Your task to perform on an android device: Clear the cart on bestbuy. Add "acer predator" to the cart on bestbuy Image 0: 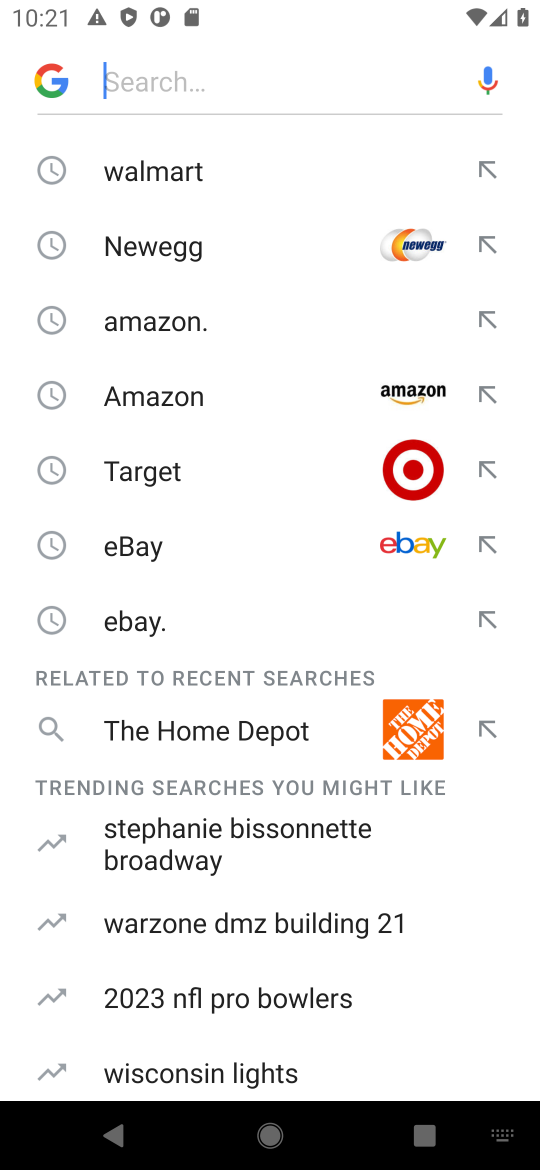
Step 0: type "bestbyut"
Your task to perform on an android device: Clear the cart on bestbuy. Add "acer predator" to the cart on bestbuy Image 1: 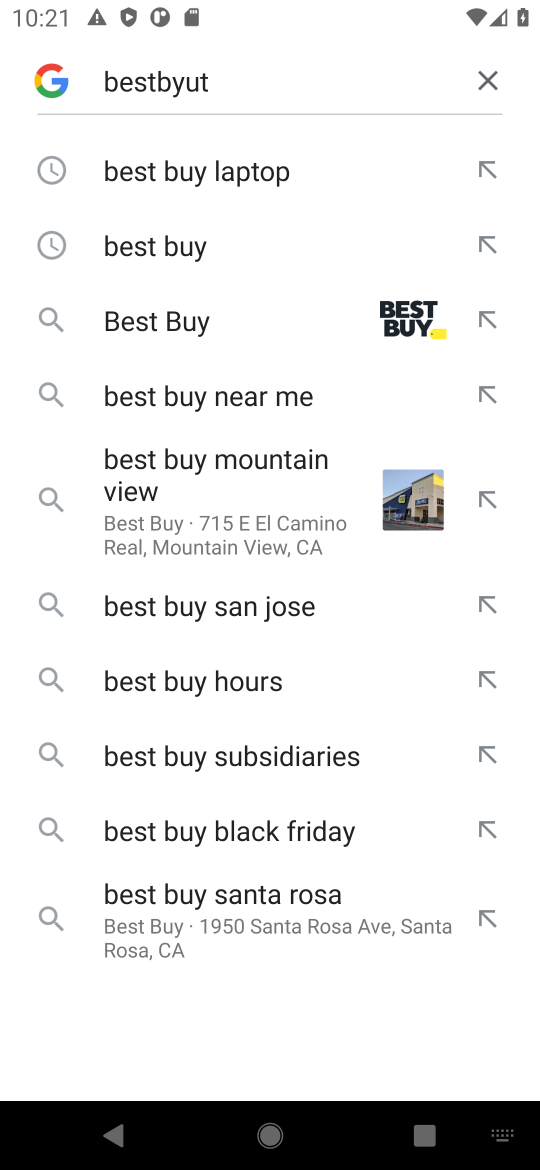
Step 1: click (170, 328)
Your task to perform on an android device: Clear the cart on bestbuy. Add "acer predator" to the cart on bestbuy Image 2: 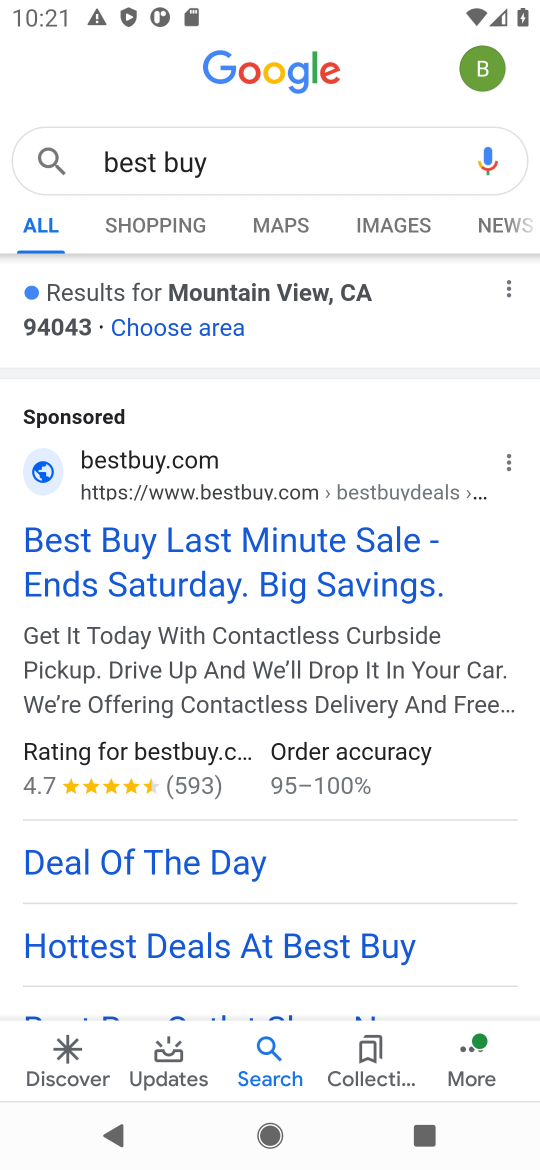
Step 2: click (119, 572)
Your task to perform on an android device: Clear the cart on bestbuy. Add "acer predator" to the cart on bestbuy Image 3: 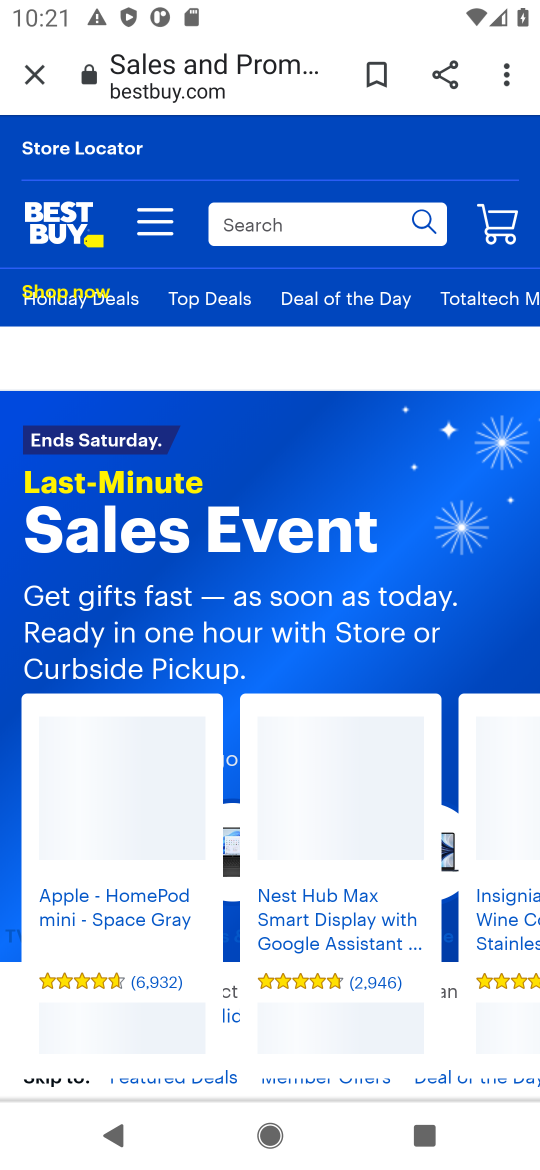
Step 3: click (240, 217)
Your task to perform on an android device: Clear the cart on bestbuy. Add "acer predator" to the cart on bestbuy Image 4: 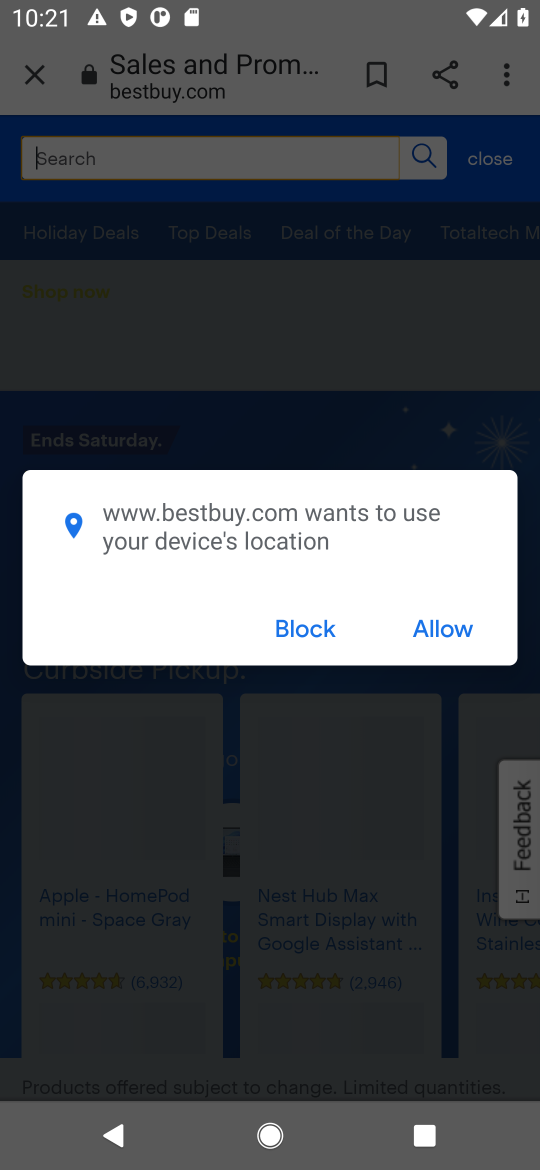
Step 4: type "acer predator"
Your task to perform on an android device: Clear the cart on bestbuy. Add "acer predator" to the cart on bestbuy Image 5: 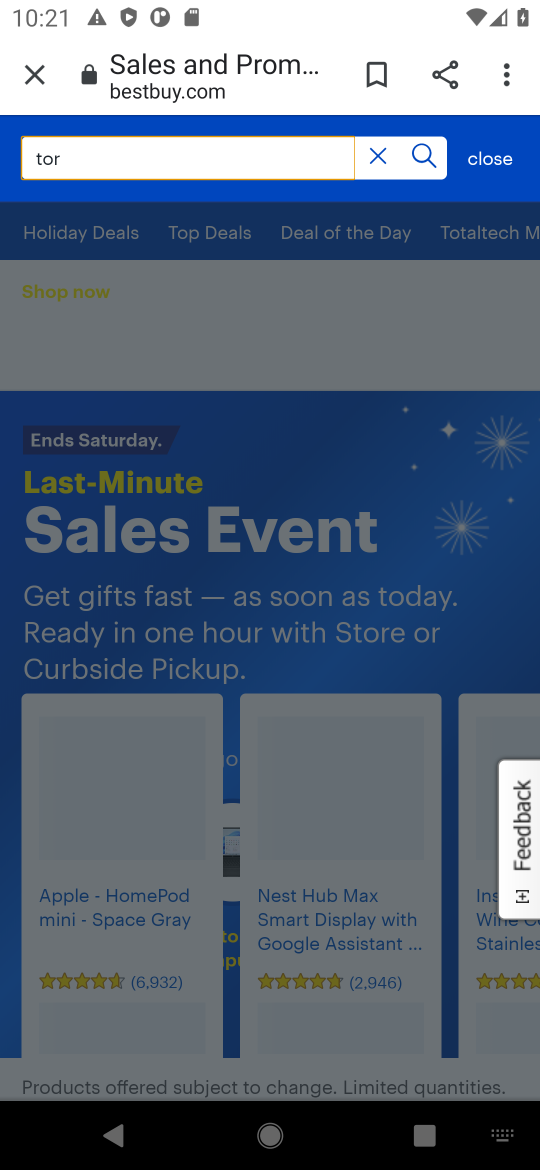
Step 5: click (416, 622)
Your task to perform on an android device: Clear the cart on bestbuy. Add "acer predator" to the cart on bestbuy Image 6: 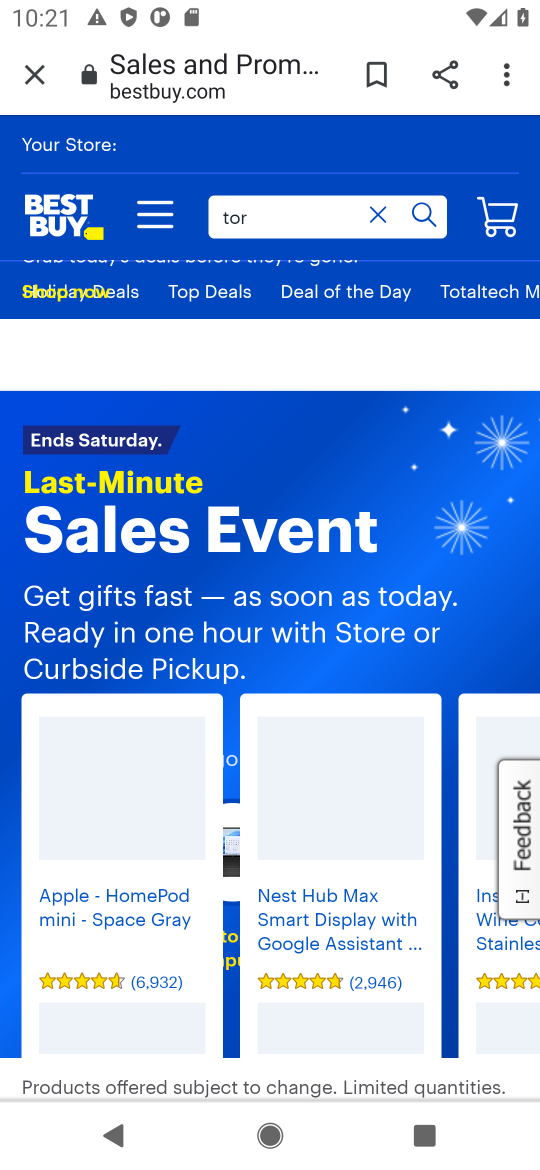
Step 6: click (380, 222)
Your task to perform on an android device: Clear the cart on bestbuy. Add "acer predator" to the cart on bestbuy Image 7: 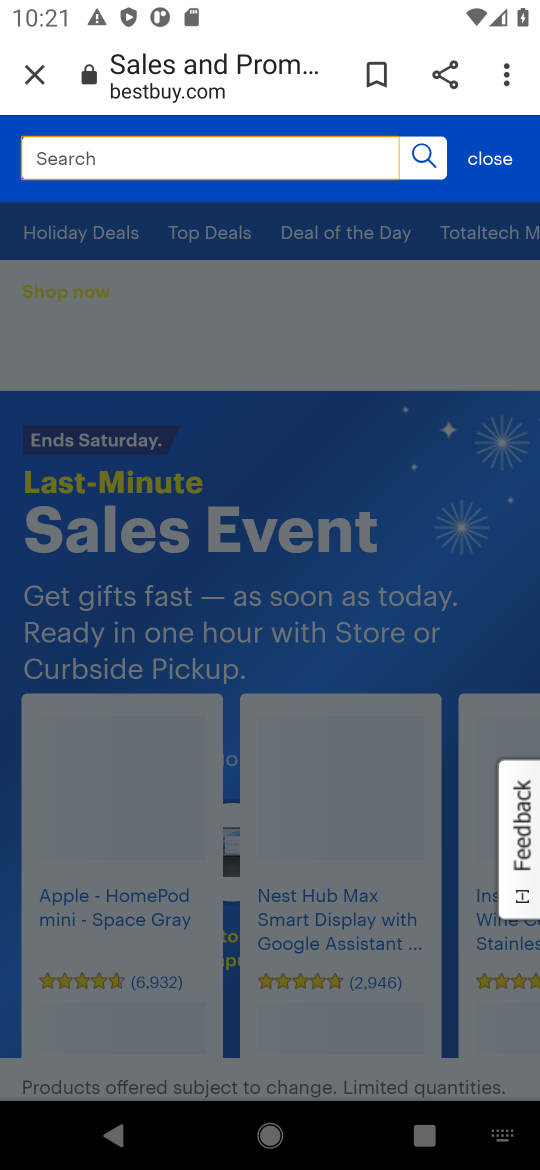
Step 7: type "acer predator"
Your task to perform on an android device: Clear the cart on bestbuy. Add "acer predator" to the cart on bestbuy Image 8: 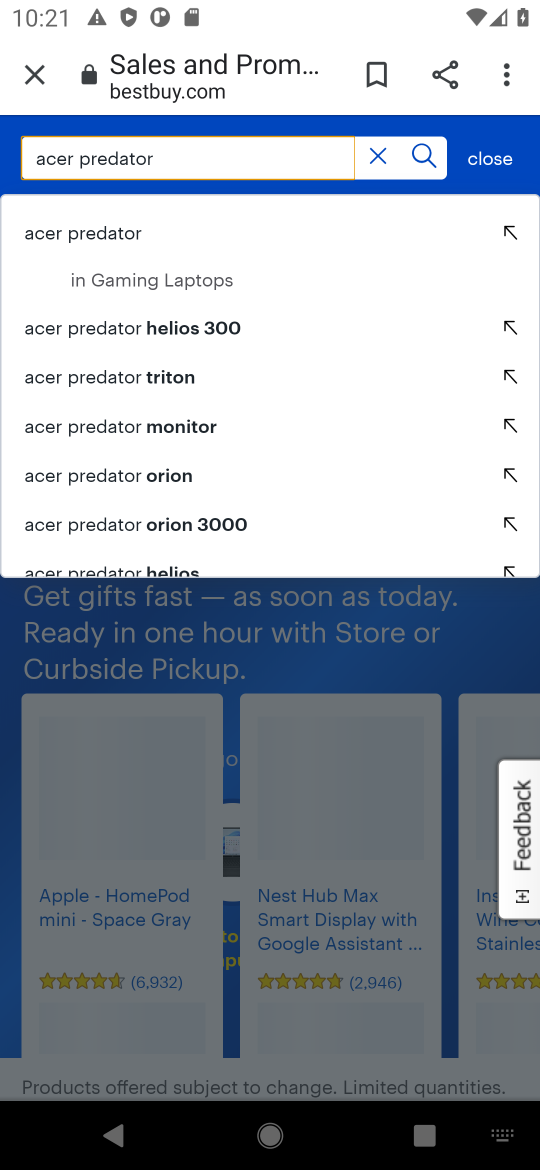
Step 8: click (169, 231)
Your task to perform on an android device: Clear the cart on bestbuy. Add "acer predator" to the cart on bestbuy Image 9: 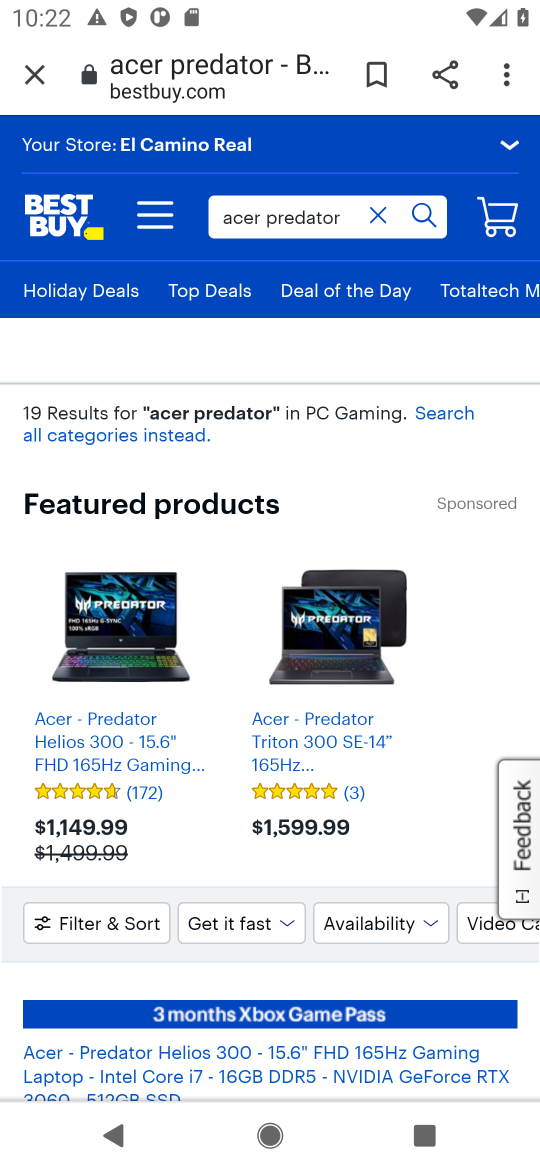
Step 9: click (61, 738)
Your task to perform on an android device: Clear the cart on bestbuy. Add "acer predator" to the cart on bestbuy Image 10: 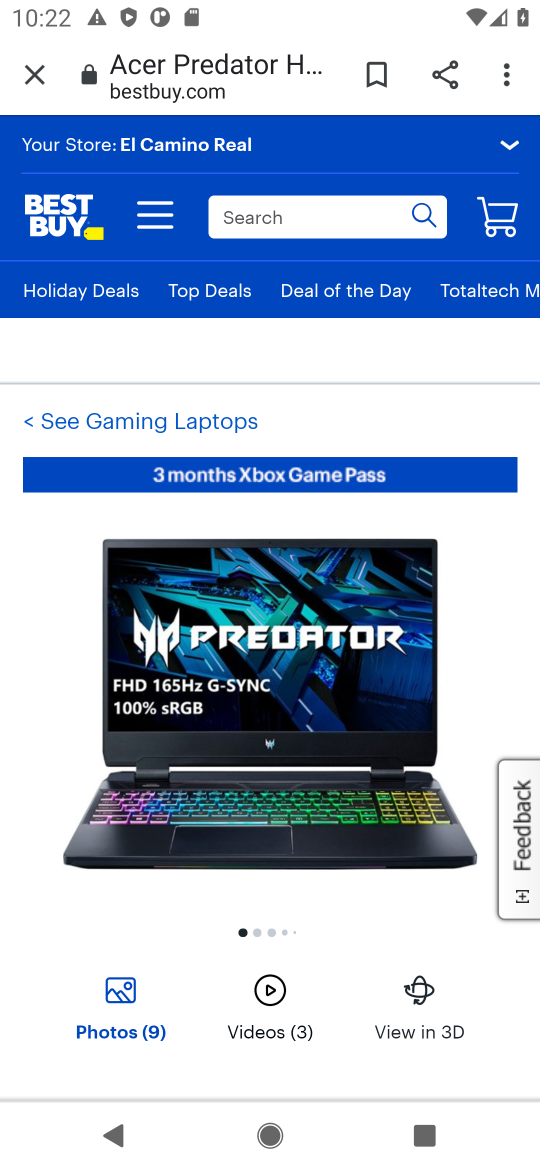
Step 10: drag from (155, 897) to (184, 261)
Your task to perform on an android device: Clear the cart on bestbuy. Add "acer predator" to the cart on bestbuy Image 11: 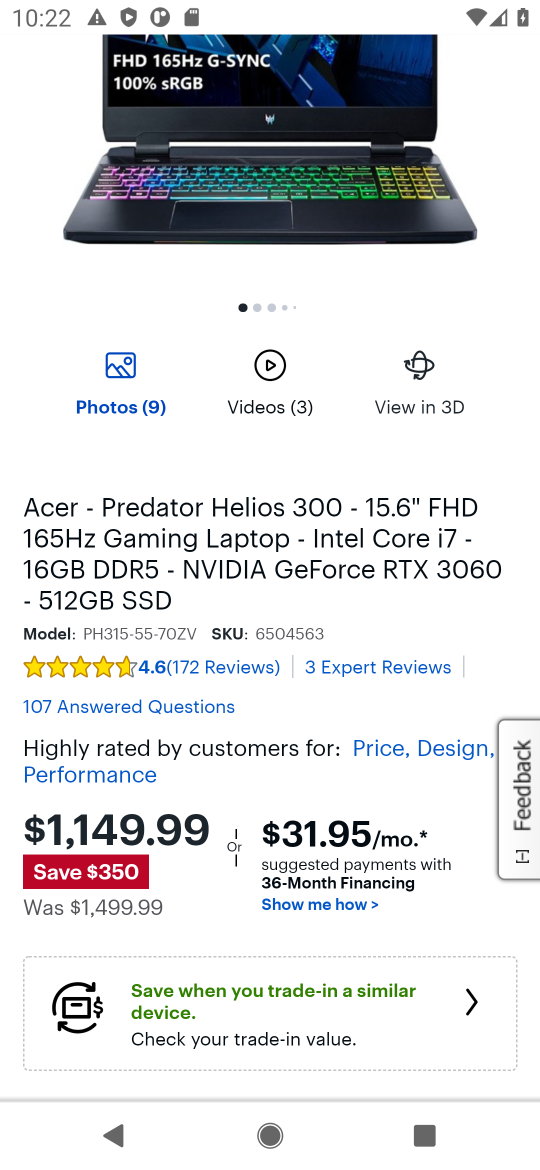
Step 11: drag from (194, 901) to (182, 394)
Your task to perform on an android device: Clear the cart on bestbuy. Add "acer predator" to the cart on bestbuy Image 12: 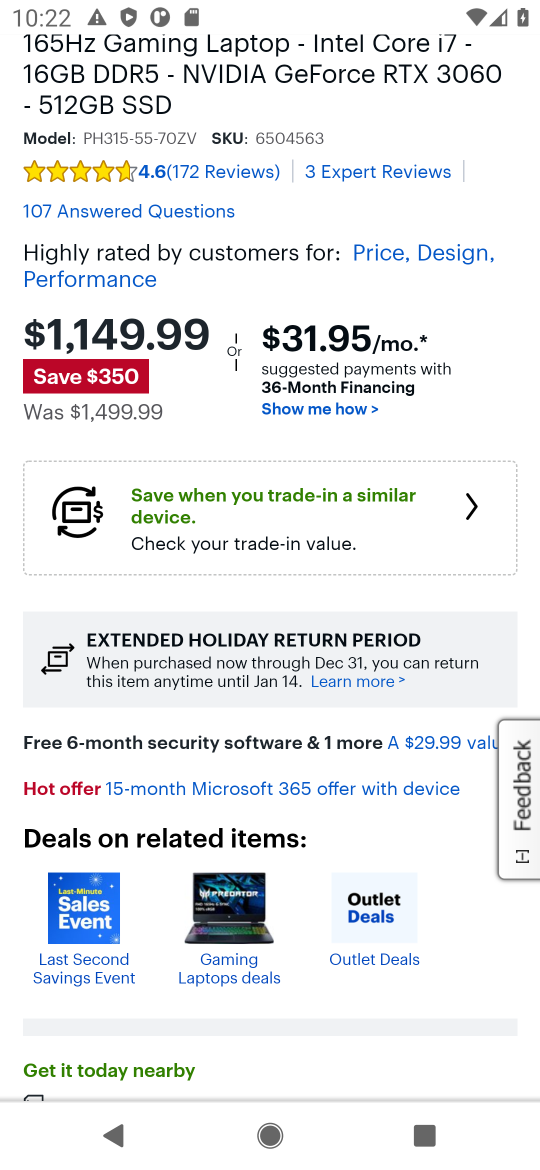
Step 12: drag from (231, 1003) to (231, 347)
Your task to perform on an android device: Clear the cart on bestbuy. Add "acer predator" to the cart on bestbuy Image 13: 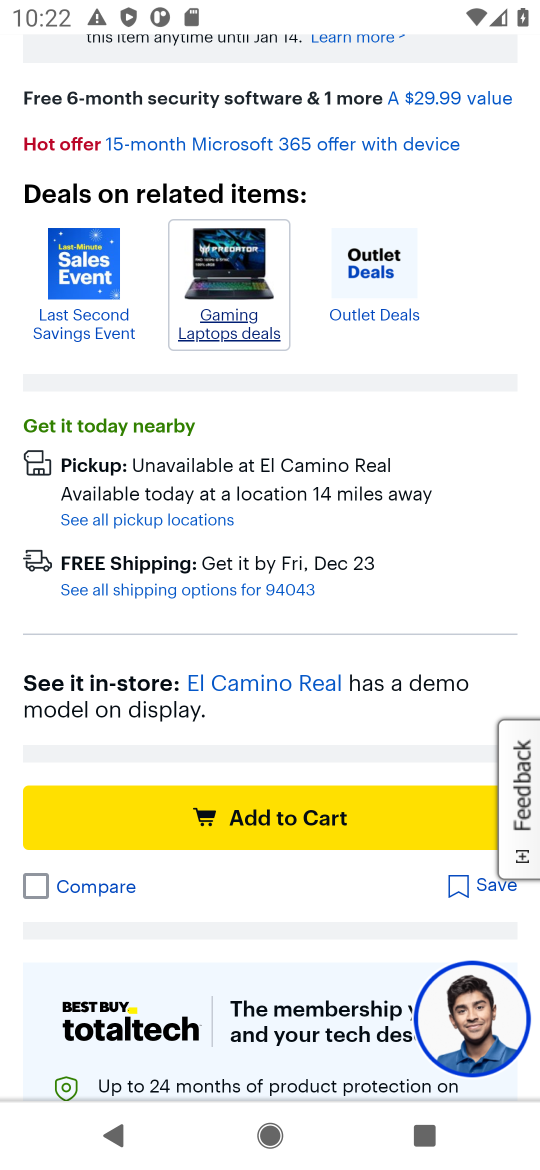
Step 13: click (219, 801)
Your task to perform on an android device: Clear the cart on bestbuy. Add "acer predator" to the cart on bestbuy Image 14: 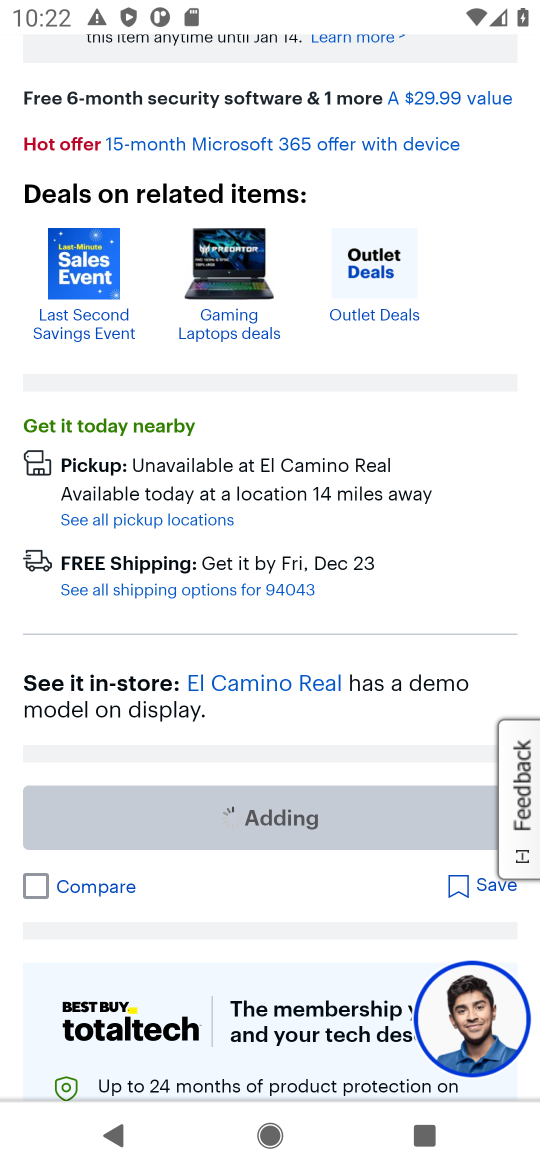
Step 14: task complete